Your task to perform on an android device: check the backup settings in the google photos Image 0: 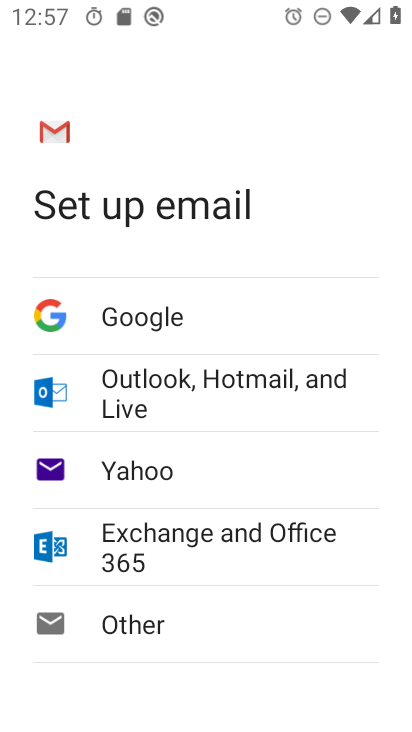
Step 0: press back button
Your task to perform on an android device: check the backup settings in the google photos Image 1: 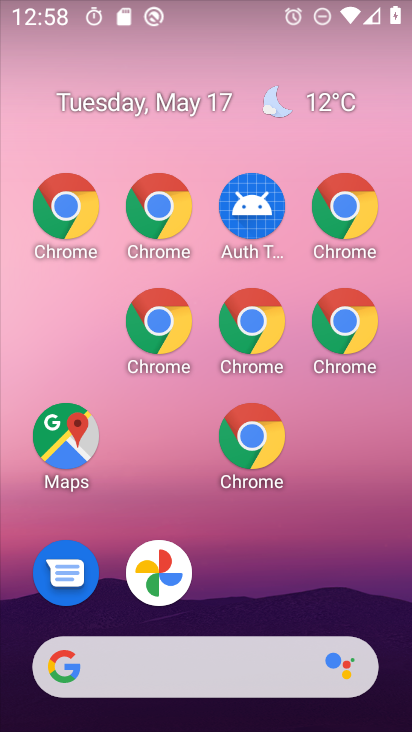
Step 1: drag from (384, 661) to (261, 173)
Your task to perform on an android device: check the backup settings in the google photos Image 2: 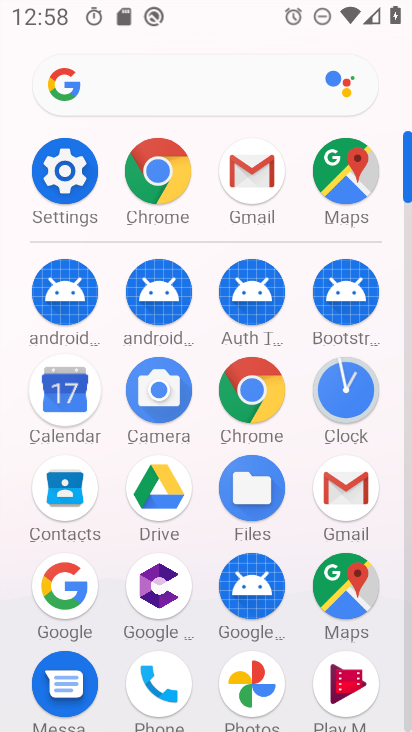
Step 2: drag from (342, 531) to (264, 222)
Your task to perform on an android device: check the backup settings in the google photos Image 3: 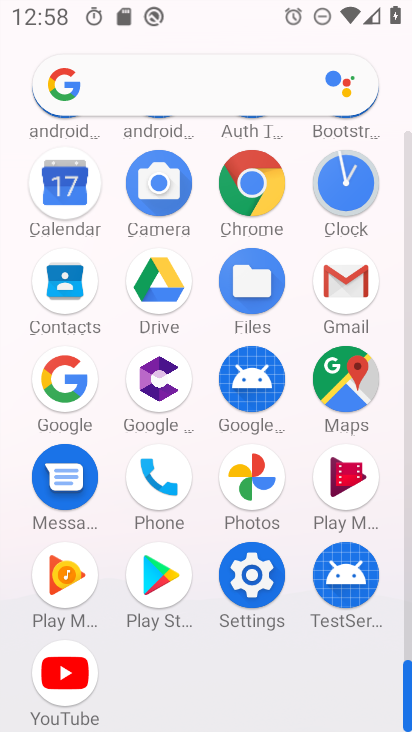
Step 3: click (243, 476)
Your task to perform on an android device: check the backup settings in the google photos Image 4: 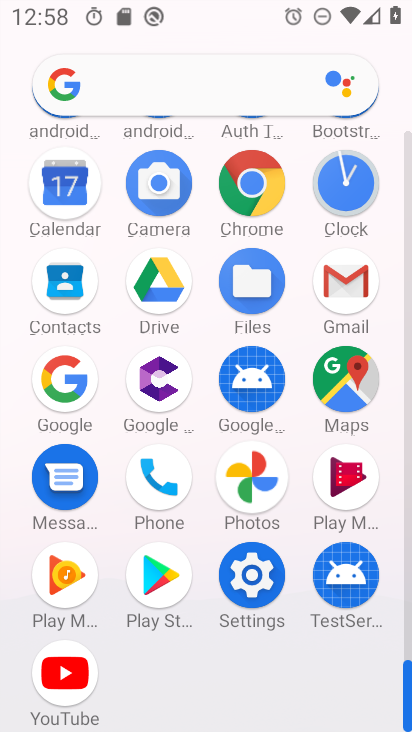
Step 4: click (253, 466)
Your task to perform on an android device: check the backup settings in the google photos Image 5: 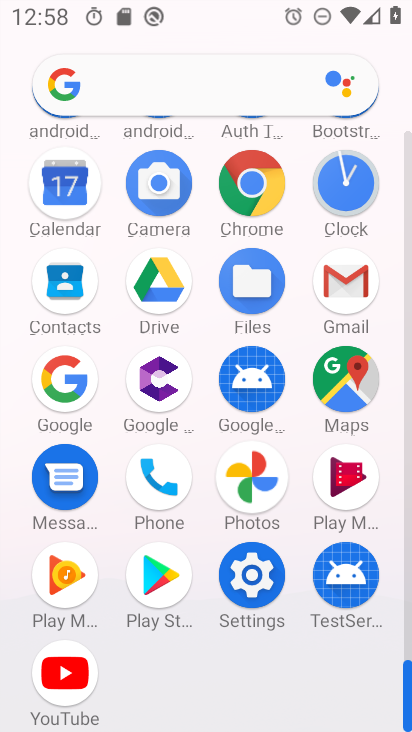
Step 5: click (256, 464)
Your task to perform on an android device: check the backup settings in the google photos Image 6: 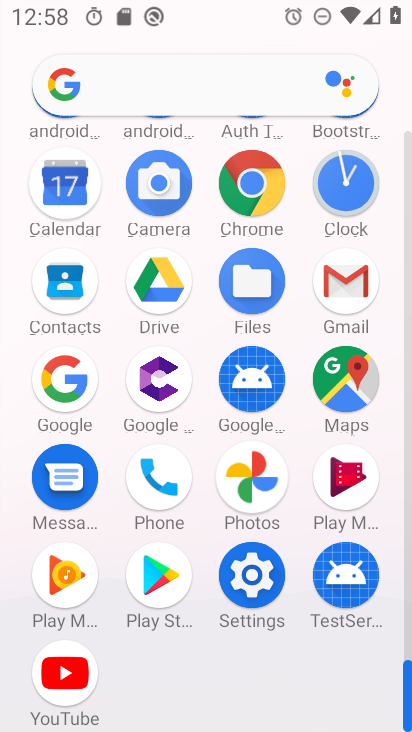
Step 6: click (257, 462)
Your task to perform on an android device: check the backup settings in the google photos Image 7: 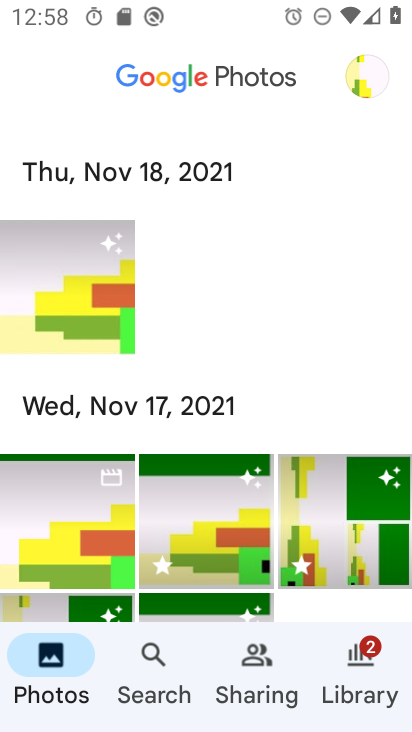
Step 7: click (362, 82)
Your task to perform on an android device: check the backup settings in the google photos Image 8: 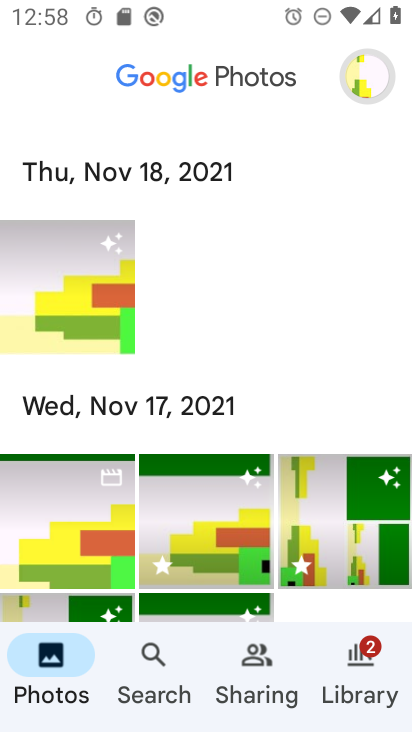
Step 8: click (372, 81)
Your task to perform on an android device: check the backup settings in the google photos Image 9: 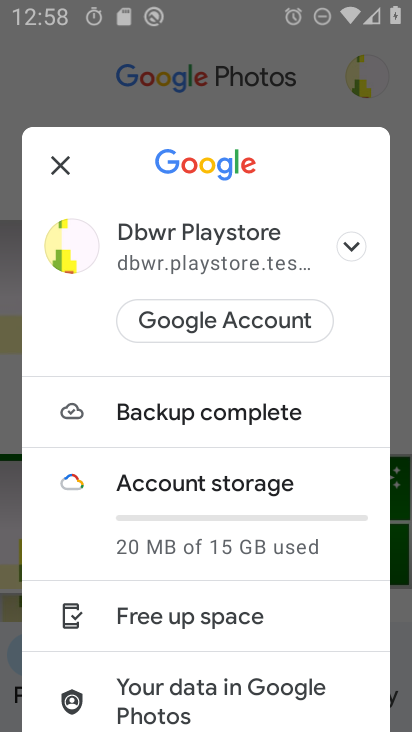
Step 9: click (373, 81)
Your task to perform on an android device: check the backup settings in the google photos Image 10: 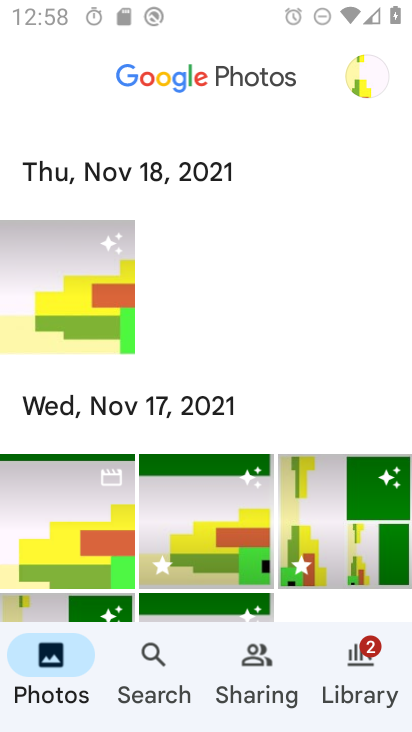
Step 10: click (374, 82)
Your task to perform on an android device: check the backup settings in the google photos Image 11: 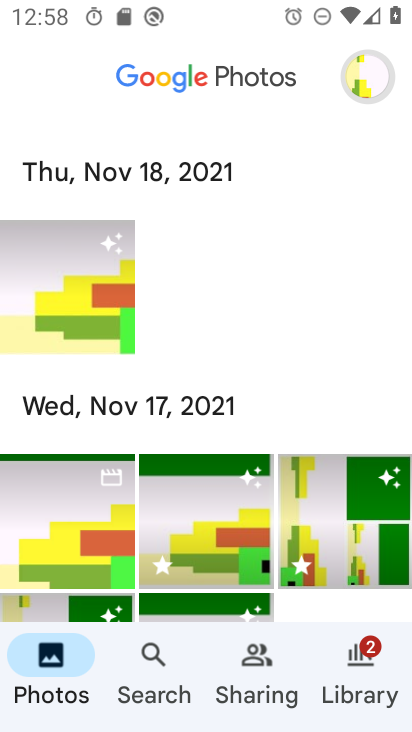
Step 11: click (374, 82)
Your task to perform on an android device: check the backup settings in the google photos Image 12: 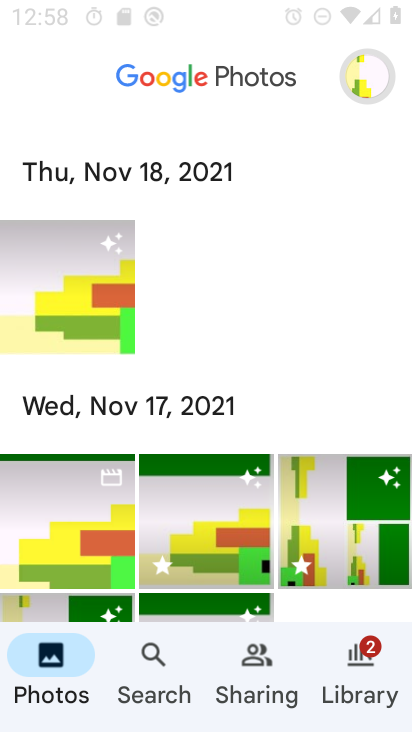
Step 12: click (375, 83)
Your task to perform on an android device: check the backup settings in the google photos Image 13: 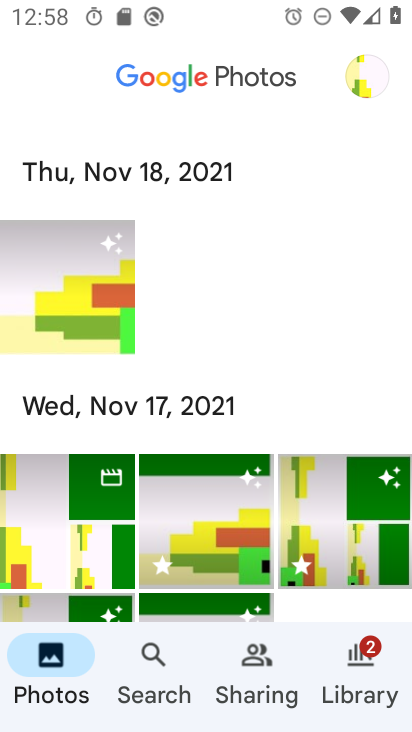
Step 13: click (204, 418)
Your task to perform on an android device: check the backup settings in the google photos Image 14: 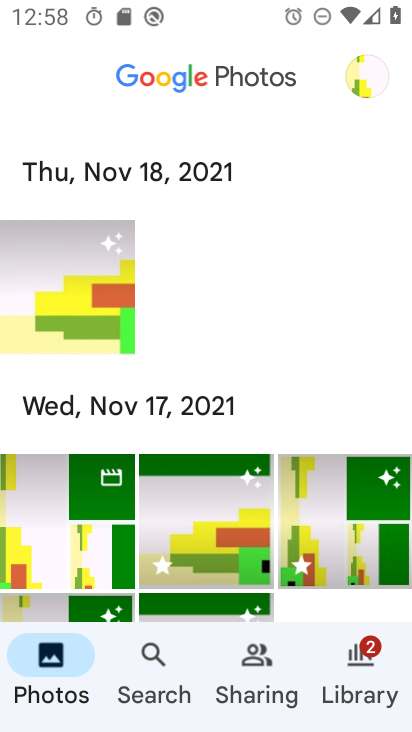
Step 14: click (203, 415)
Your task to perform on an android device: check the backup settings in the google photos Image 15: 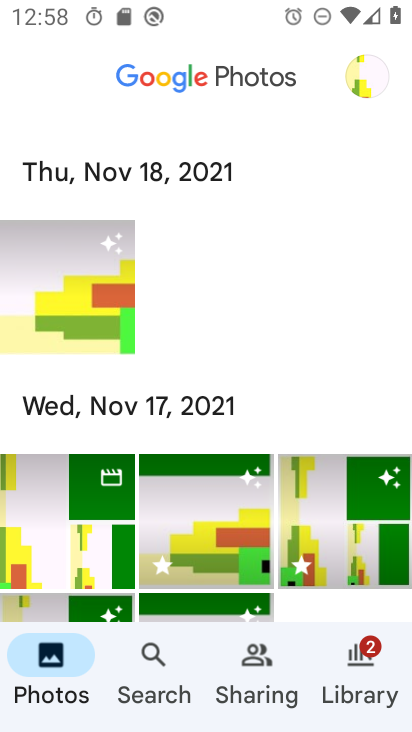
Step 15: click (204, 414)
Your task to perform on an android device: check the backup settings in the google photos Image 16: 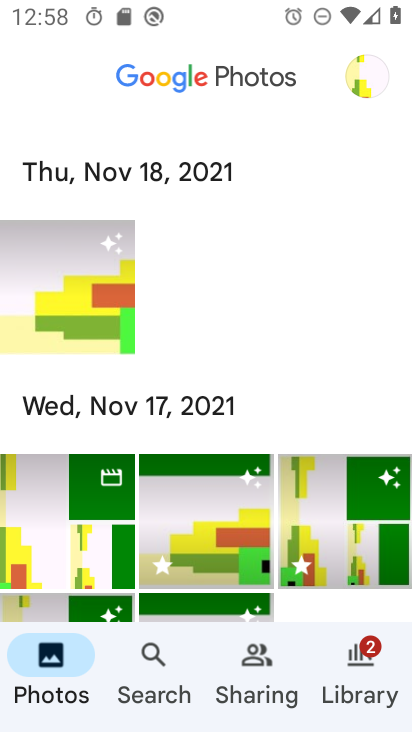
Step 16: click (205, 413)
Your task to perform on an android device: check the backup settings in the google photos Image 17: 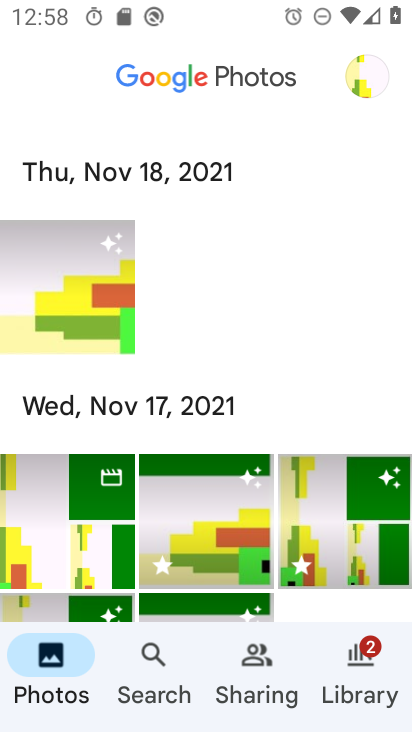
Step 17: click (205, 412)
Your task to perform on an android device: check the backup settings in the google photos Image 18: 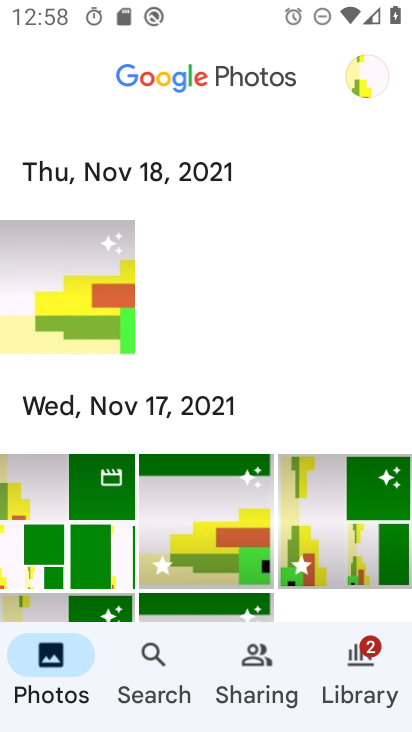
Step 18: click (207, 411)
Your task to perform on an android device: check the backup settings in the google photos Image 19: 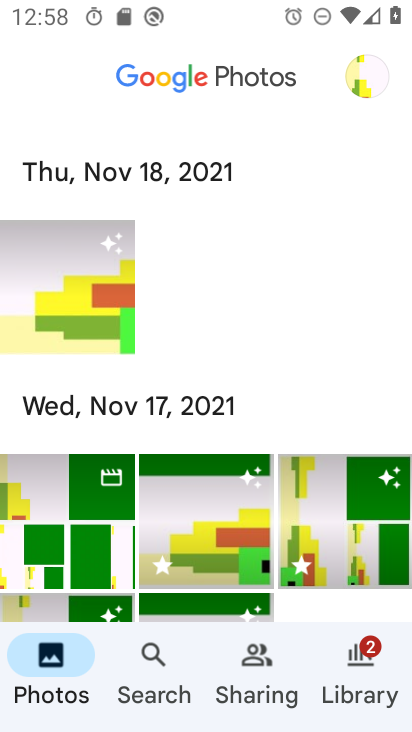
Step 19: click (207, 411)
Your task to perform on an android device: check the backup settings in the google photos Image 20: 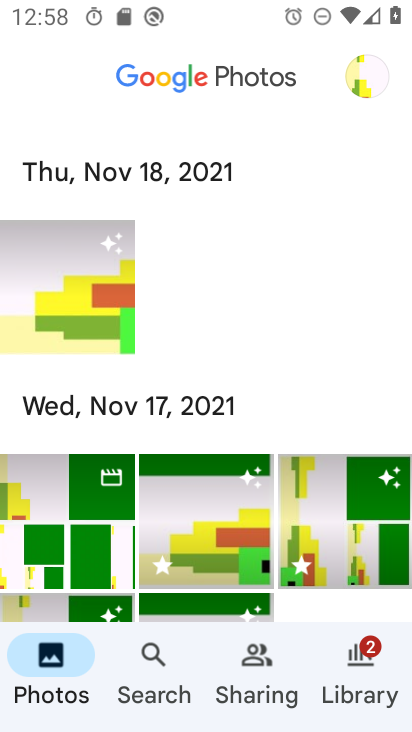
Step 20: click (208, 411)
Your task to perform on an android device: check the backup settings in the google photos Image 21: 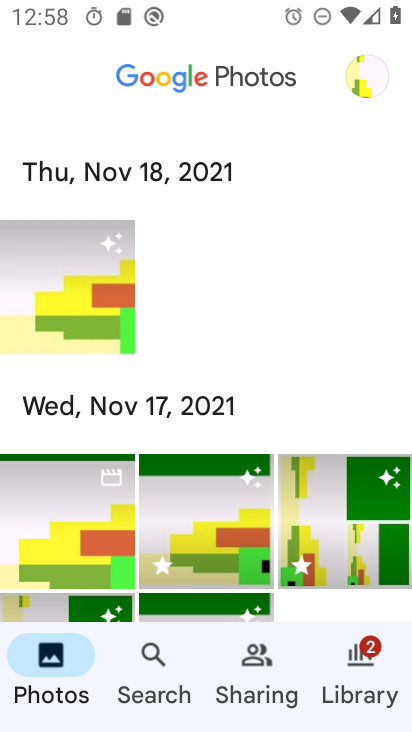
Step 21: task complete